Your task to perform on an android device: Go to Google Image 0: 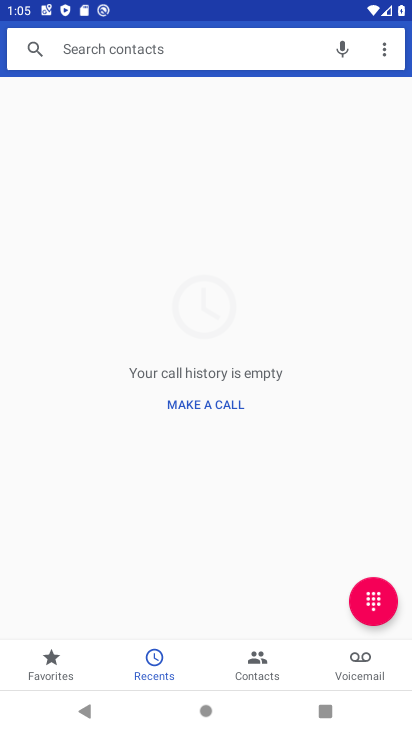
Step 0: press home button
Your task to perform on an android device: Go to Google Image 1: 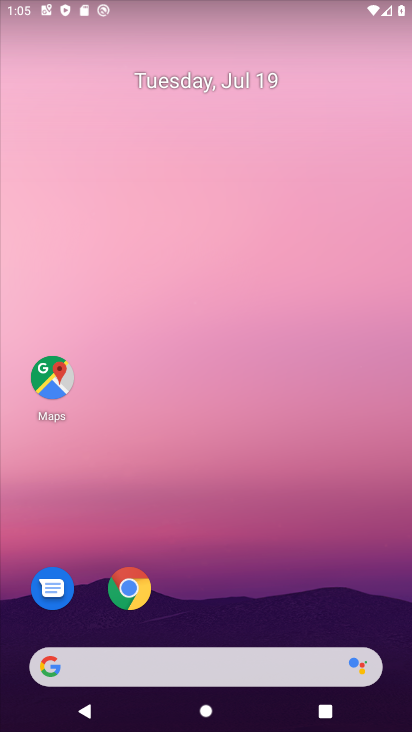
Step 1: click (97, 665)
Your task to perform on an android device: Go to Google Image 2: 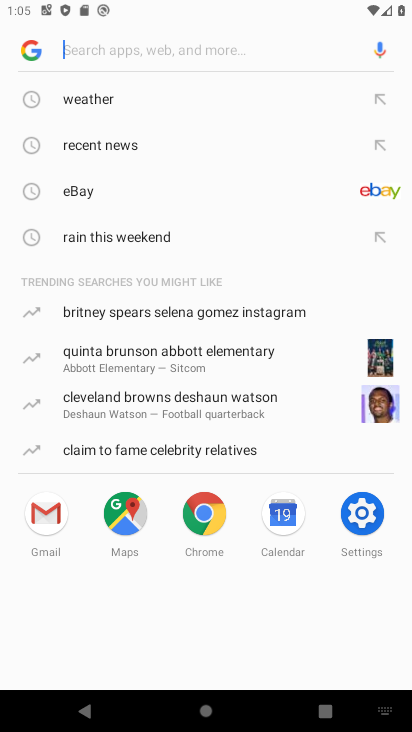
Step 2: task complete